Your task to perform on an android device: turn off picture-in-picture Image 0: 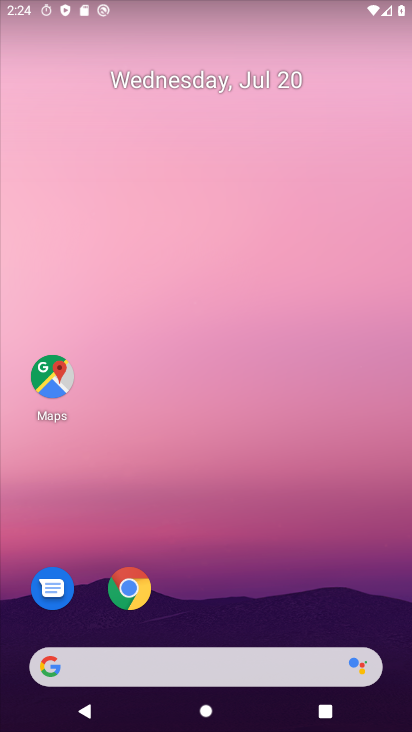
Step 0: drag from (182, 597) to (197, 89)
Your task to perform on an android device: turn off picture-in-picture Image 1: 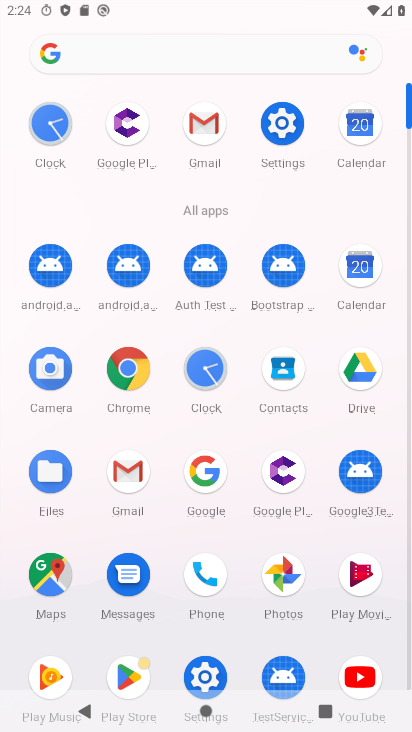
Step 1: click (271, 125)
Your task to perform on an android device: turn off picture-in-picture Image 2: 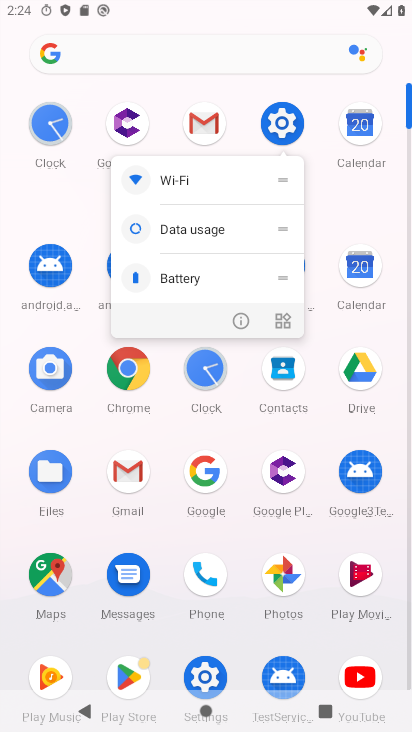
Step 2: click (231, 319)
Your task to perform on an android device: turn off picture-in-picture Image 3: 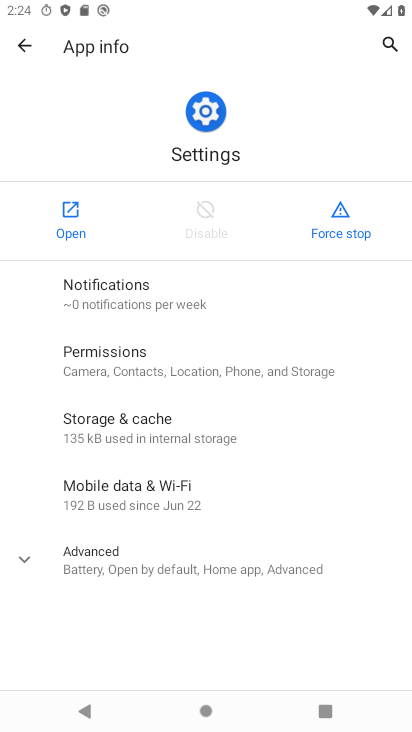
Step 3: click (61, 219)
Your task to perform on an android device: turn off picture-in-picture Image 4: 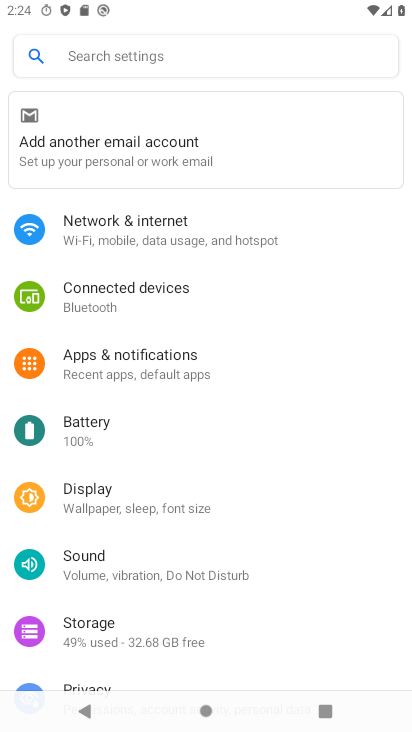
Step 4: click (134, 353)
Your task to perform on an android device: turn off picture-in-picture Image 5: 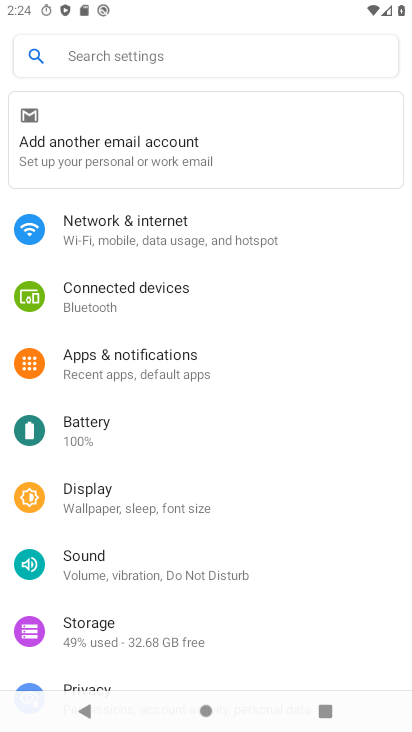
Step 5: click (134, 352)
Your task to perform on an android device: turn off picture-in-picture Image 6: 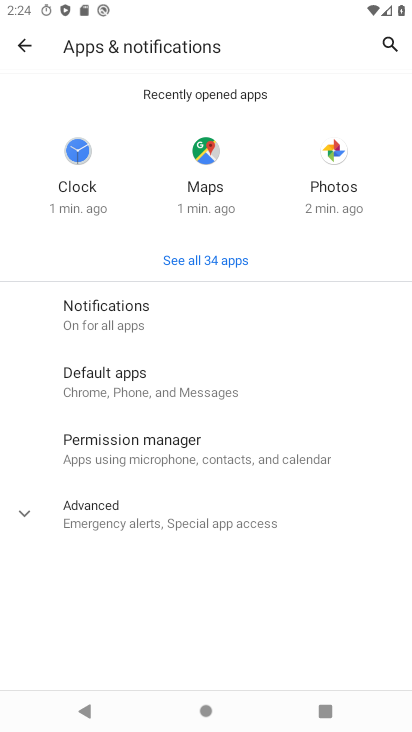
Step 6: click (105, 317)
Your task to perform on an android device: turn off picture-in-picture Image 7: 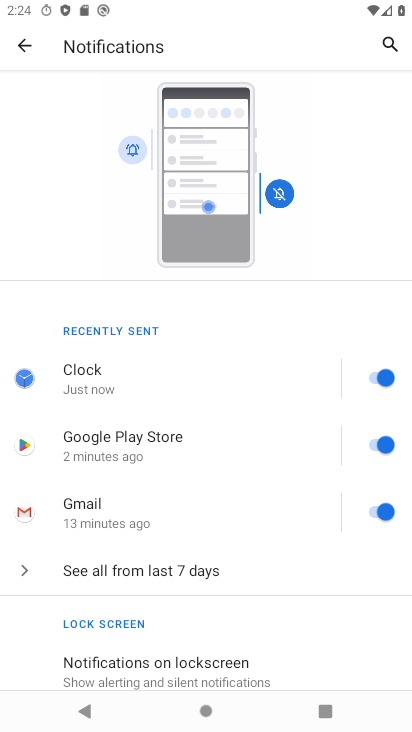
Step 7: drag from (191, 648) to (246, 175)
Your task to perform on an android device: turn off picture-in-picture Image 8: 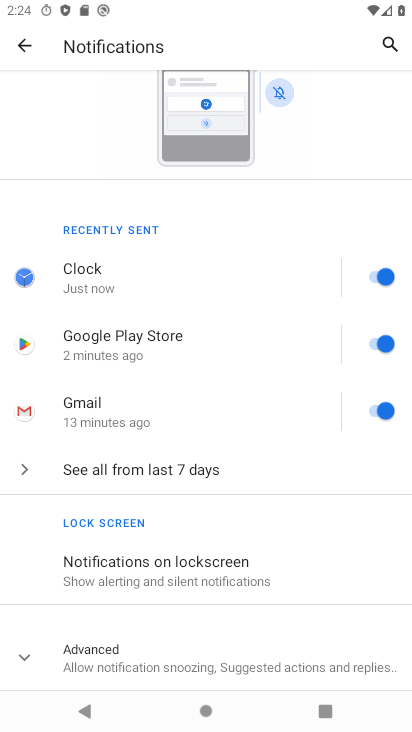
Step 8: click (22, 40)
Your task to perform on an android device: turn off picture-in-picture Image 9: 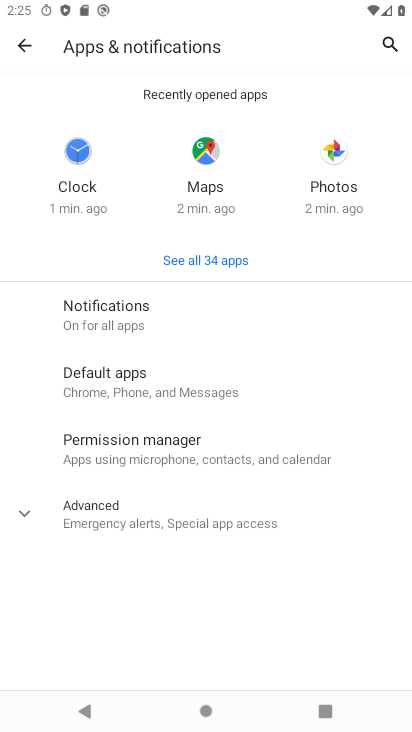
Step 9: click (184, 515)
Your task to perform on an android device: turn off picture-in-picture Image 10: 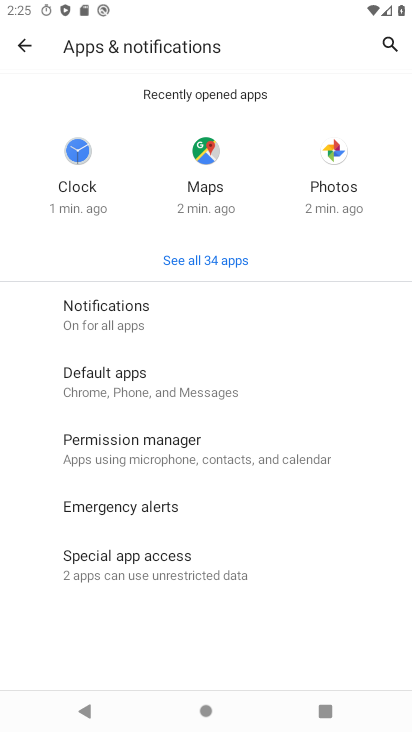
Step 10: drag from (172, 481) to (258, 186)
Your task to perform on an android device: turn off picture-in-picture Image 11: 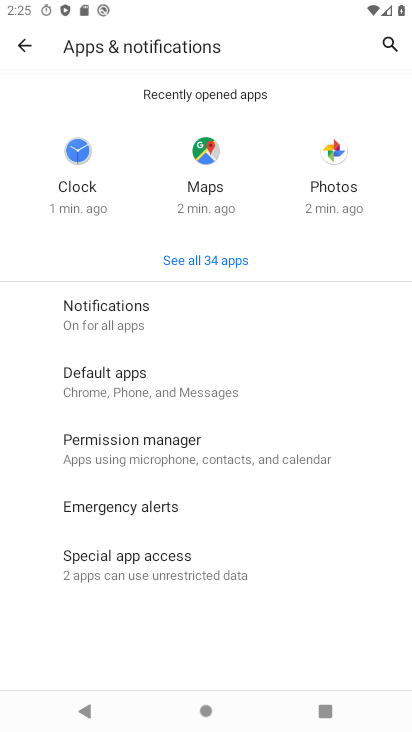
Step 11: click (154, 571)
Your task to perform on an android device: turn off picture-in-picture Image 12: 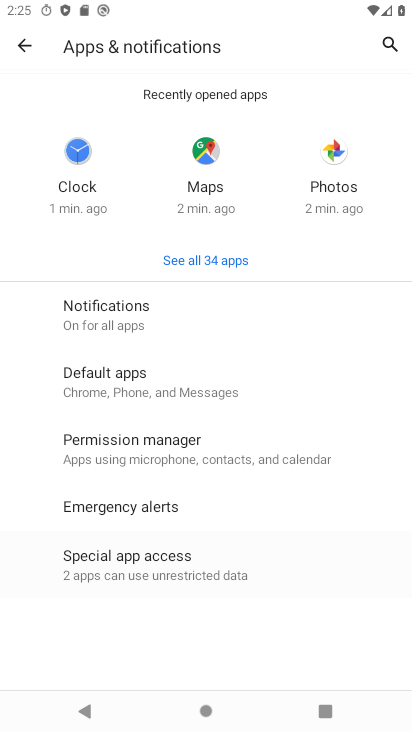
Step 12: drag from (166, 542) to (362, 20)
Your task to perform on an android device: turn off picture-in-picture Image 13: 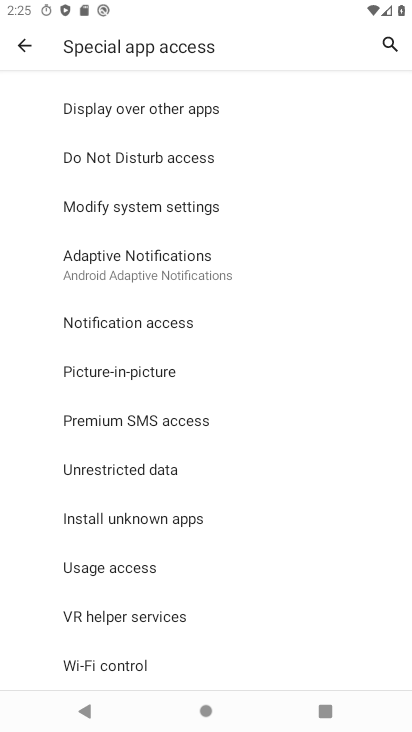
Step 13: click (145, 369)
Your task to perform on an android device: turn off picture-in-picture Image 14: 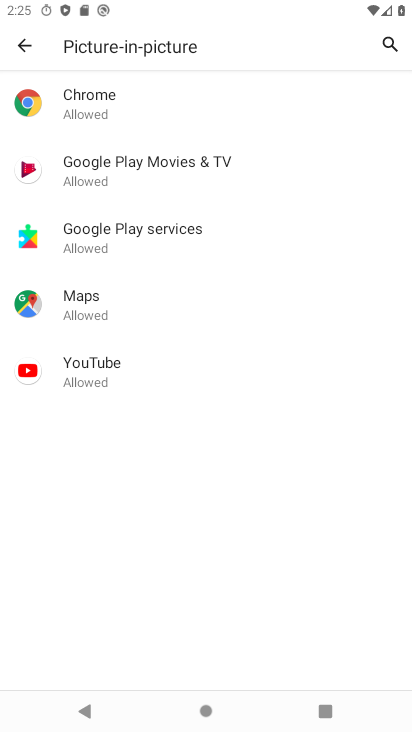
Step 14: click (99, 118)
Your task to perform on an android device: turn off picture-in-picture Image 15: 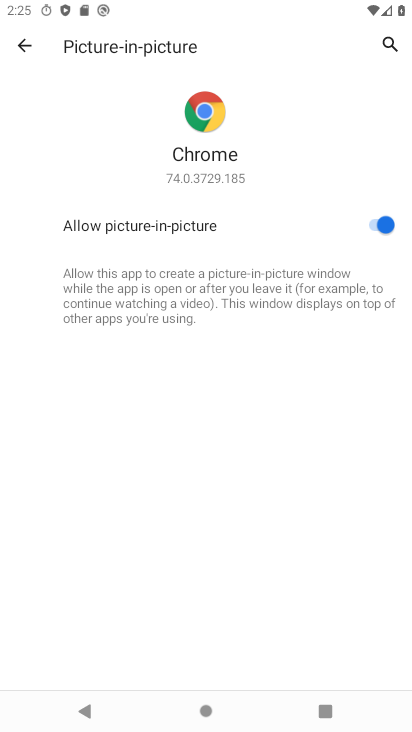
Step 15: click (357, 216)
Your task to perform on an android device: turn off picture-in-picture Image 16: 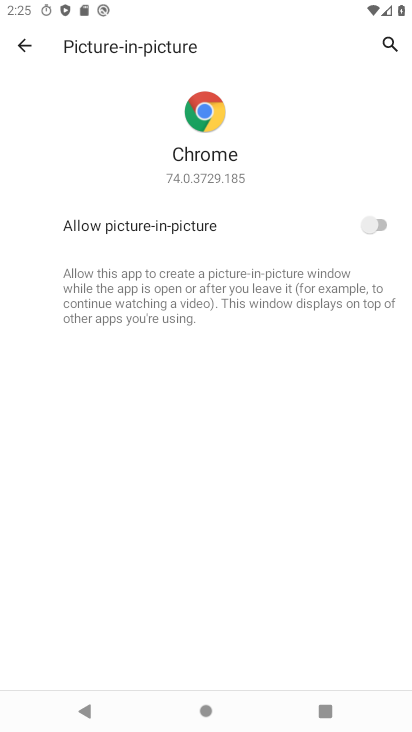
Step 16: task complete